Your task to perform on an android device: Go to eBay Image 0: 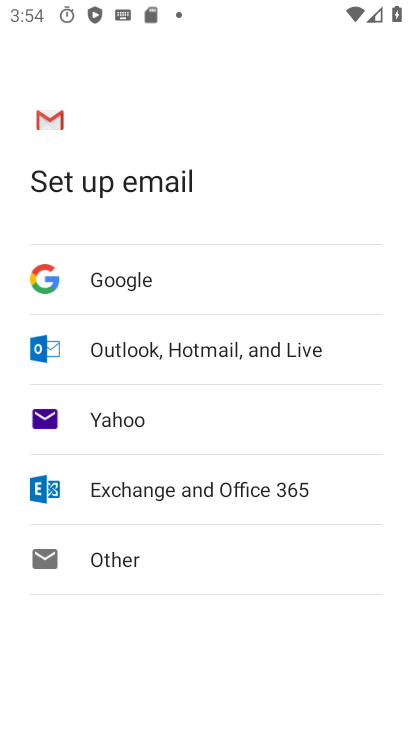
Step 0: press home button
Your task to perform on an android device: Go to eBay Image 1: 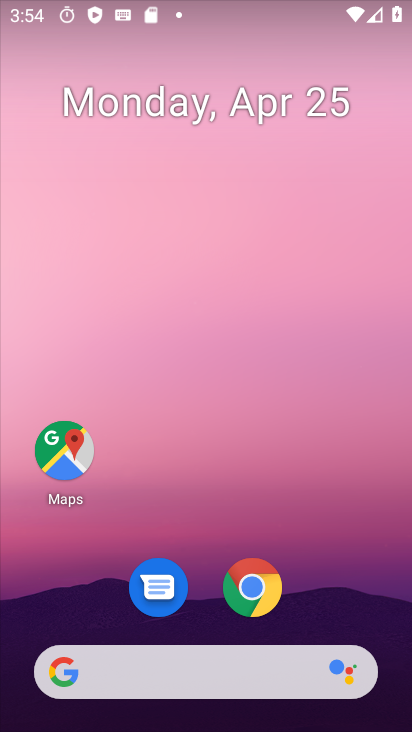
Step 1: drag from (315, 582) to (304, 79)
Your task to perform on an android device: Go to eBay Image 2: 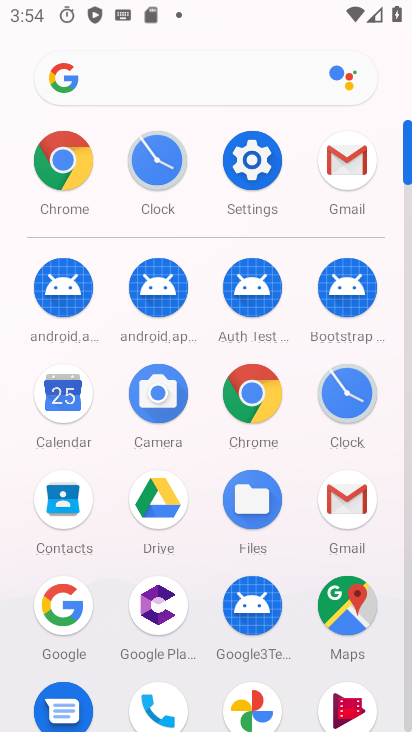
Step 2: click (244, 393)
Your task to perform on an android device: Go to eBay Image 3: 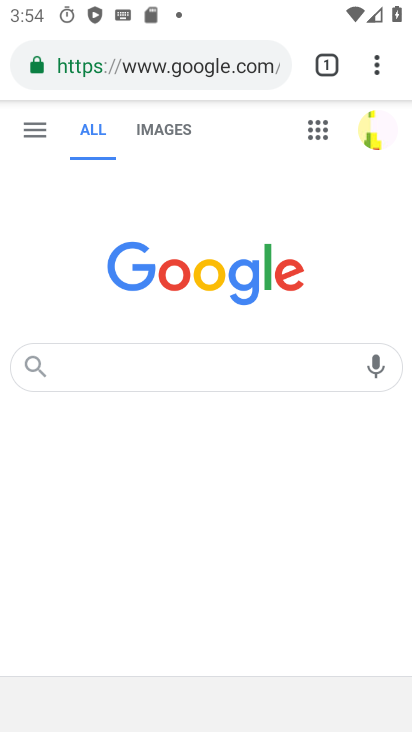
Step 3: click (190, 57)
Your task to perform on an android device: Go to eBay Image 4: 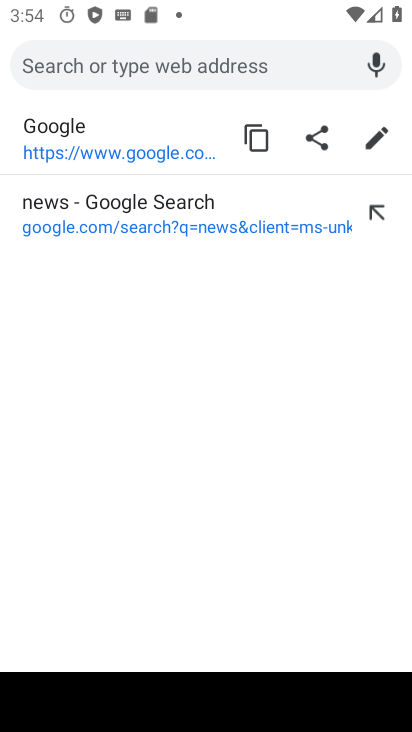
Step 4: type "ebay"
Your task to perform on an android device: Go to eBay Image 5: 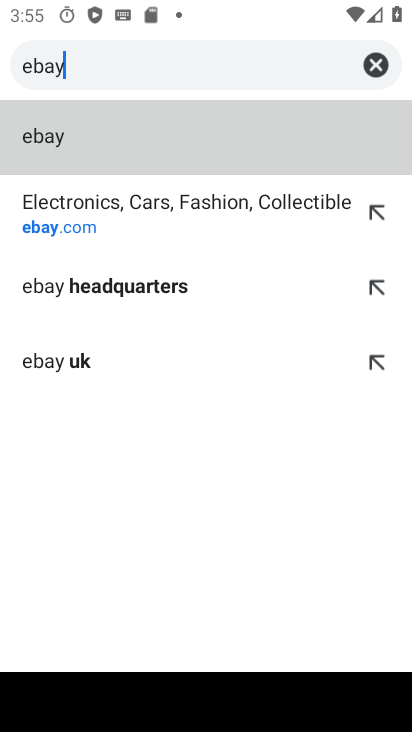
Step 5: click (51, 142)
Your task to perform on an android device: Go to eBay Image 6: 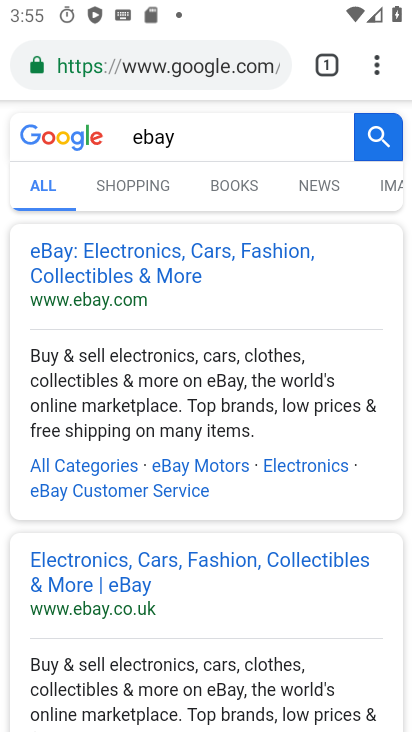
Step 6: click (126, 267)
Your task to perform on an android device: Go to eBay Image 7: 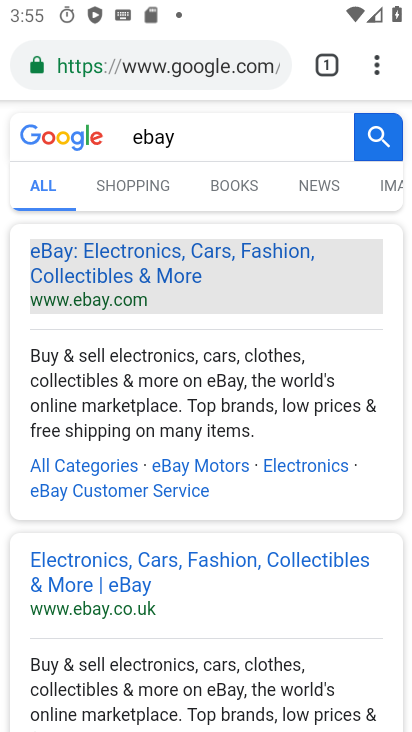
Step 7: click (134, 256)
Your task to perform on an android device: Go to eBay Image 8: 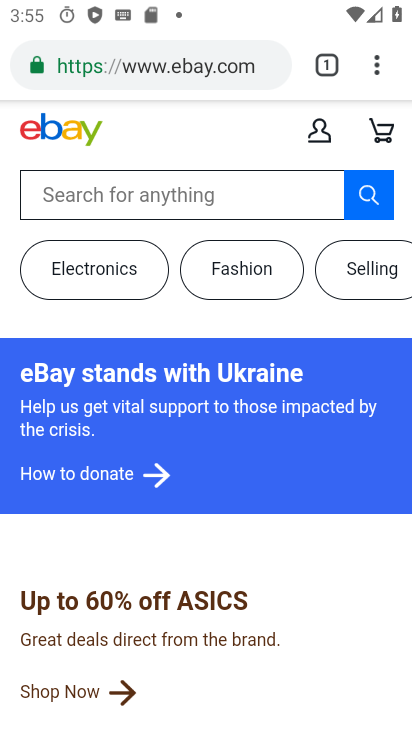
Step 8: task complete